Your task to perform on an android device: open app "Grab" (install if not already installed) Image 0: 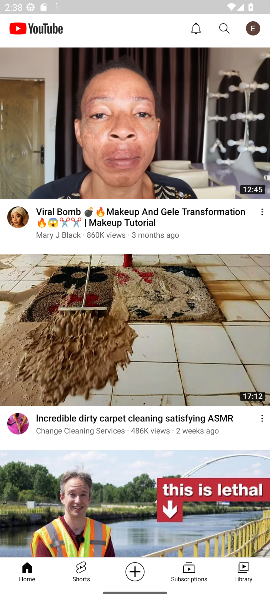
Step 0: press home button
Your task to perform on an android device: open app "Grab" (install if not already installed) Image 1: 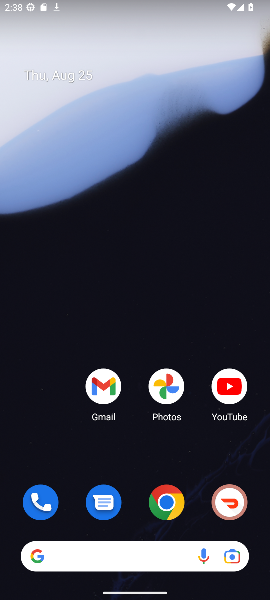
Step 1: drag from (130, 527) to (128, 53)
Your task to perform on an android device: open app "Grab" (install if not already installed) Image 2: 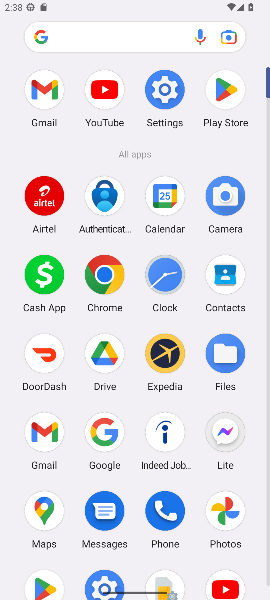
Step 2: click (218, 99)
Your task to perform on an android device: open app "Grab" (install if not already installed) Image 3: 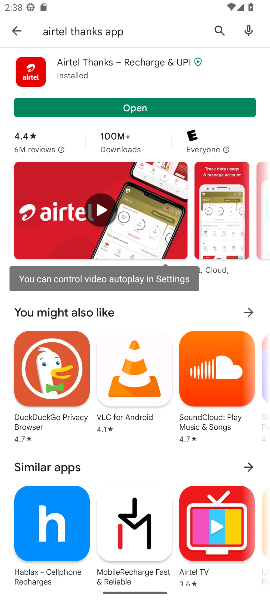
Step 3: click (221, 32)
Your task to perform on an android device: open app "Grab" (install if not already installed) Image 4: 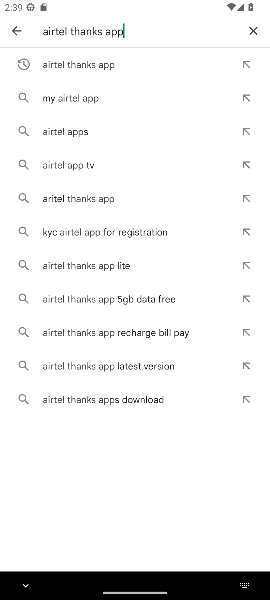
Step 4: click (253, 33)
Your task to perform on an android device: open app "Grab" (install if not already installed) Image 5: 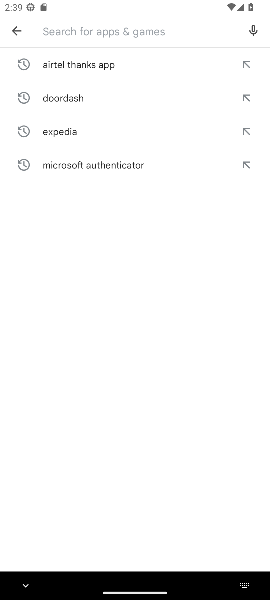
Step 5: type "grab"
Your task to perform on an android device: open app "Grab" (install if not already installed) Image 6: 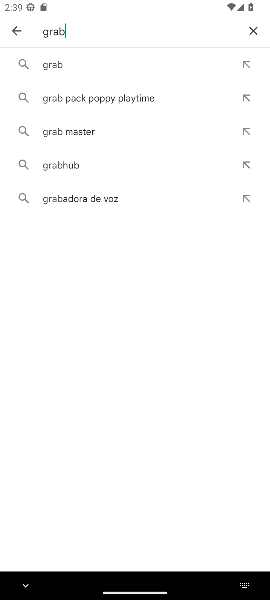
Step 6: click (85, 59)
Your task to perform on an android device: open app "Grab" (install if not already installed) Image 7: 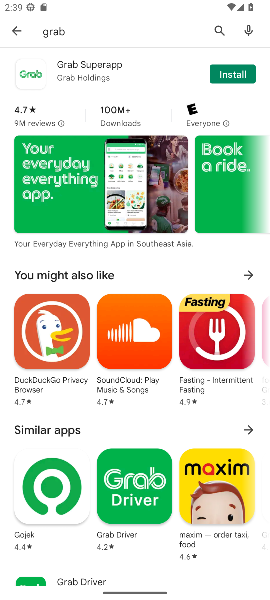
Step 7: click (222, 75)
Your task to perform on an android device: open app "Grab" (install if not already installed) Image 8: 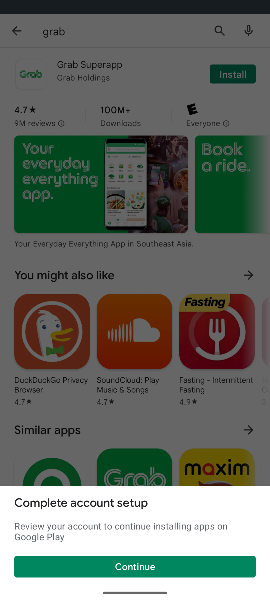
Step 8: click (67, 560)
Your task to perform on an android device: open app "Grab" (install if not already installed) Image 9: 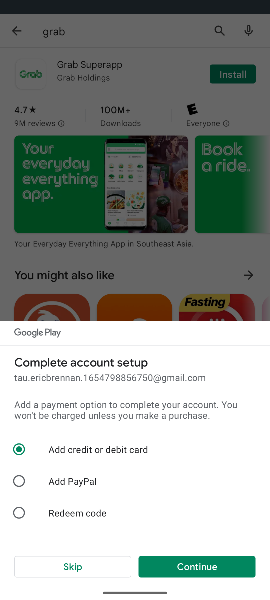
Step 9: click (99, 563)
Your task to perform on an android device: open app "Grab" (install if not already installed) Image 10: 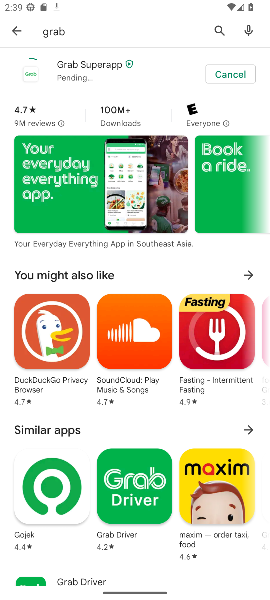
Step 10: task complete